Your task to perform on an android device: turn off wifi Image 0: 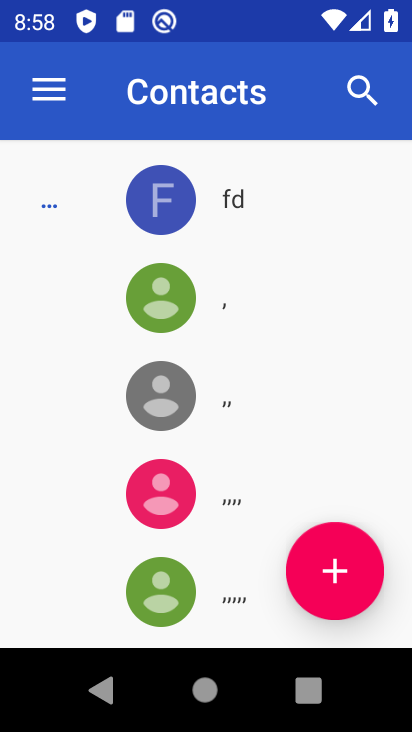
Step 0: press home button
Your task to perform on an android device: turn off wifi Image 1: 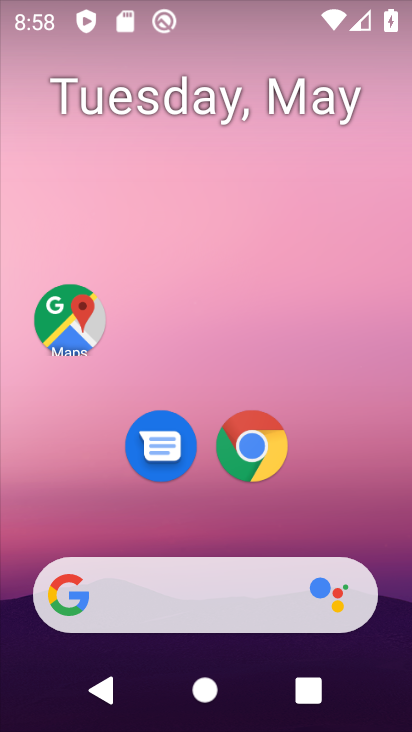
Step 1: drag from (387, 531) to (343, 200)
Your task to perform on an android device: turn off wifi Image 2: 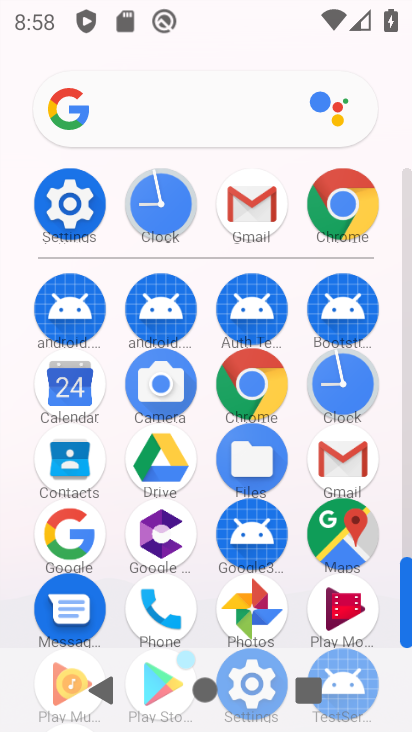
Step 2: click (73, 218)
Your task to perform on an android device: turn off wifi Image 3: 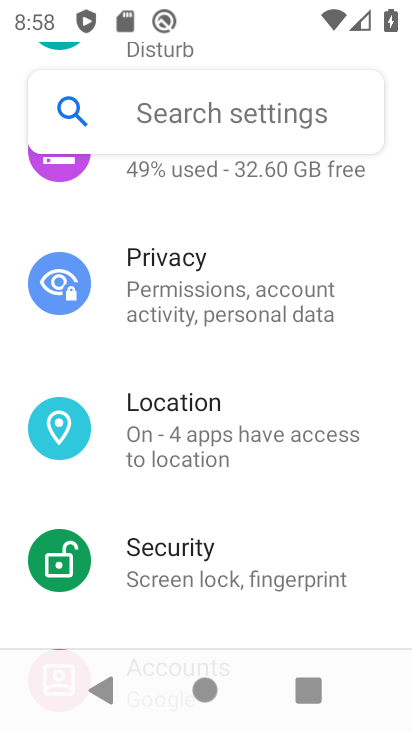
Step 3: drag from (362, 268) to (355, 466)
Your task to perform on an android device: turn off wifi Image 4: 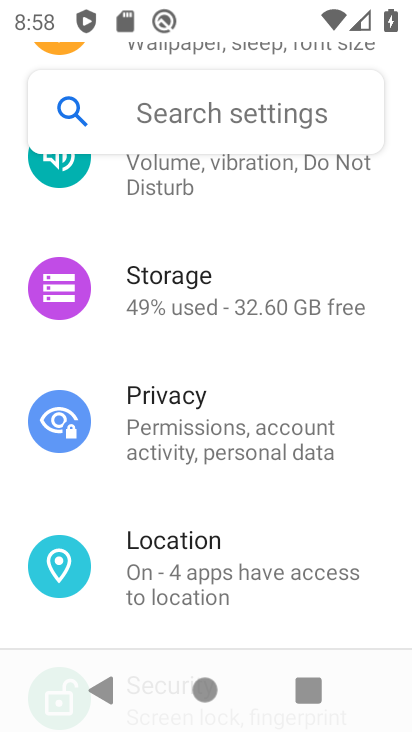
Step 4: drag from (371, 224) to (362, 368)
Your task to perform on an android device: turn off wifi Image 5: 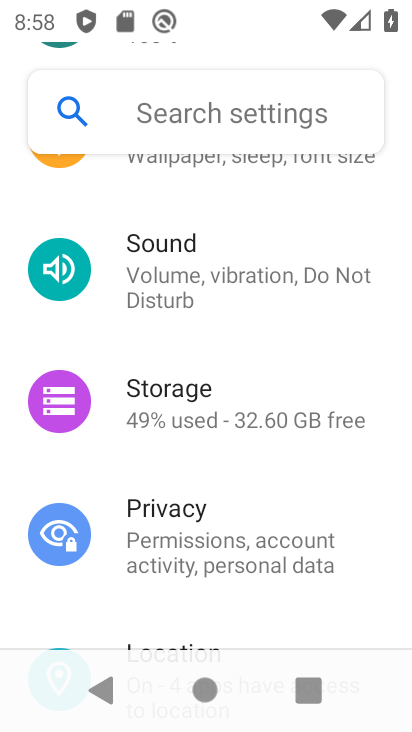
Step 5: drag from (370, 201) to (354, 347)
Your task to perform on an android device: turn off wifi Image 6: 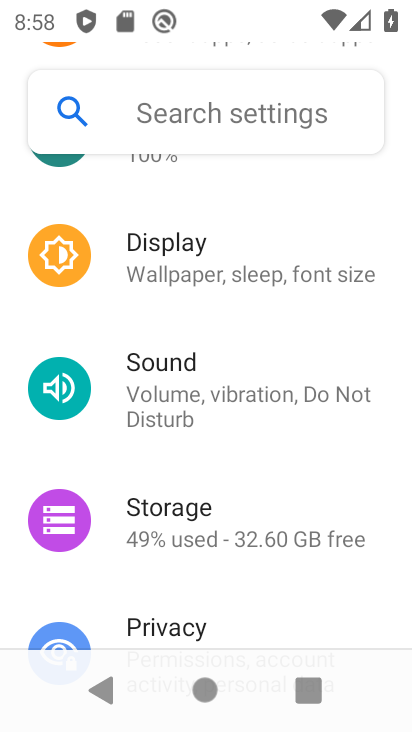
Step 6: drag from (337, 213) to (334, 381)
Your task to perform on an android device: turn off wifi Image 7: 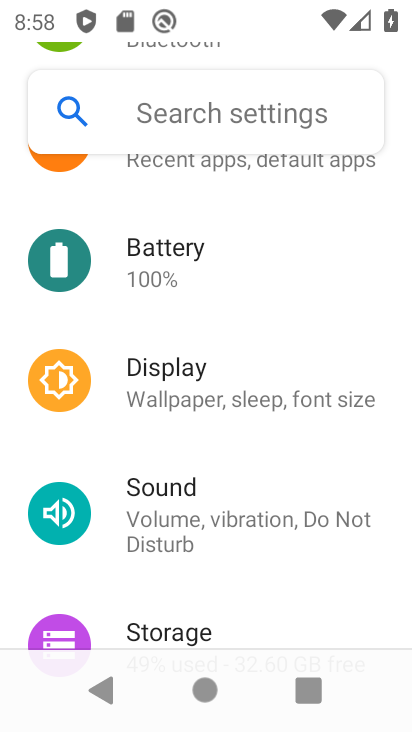
Step 7: drag from (336, 222) to (346, 319)
Your task to perform on an android device: turn off wifi Image 8: 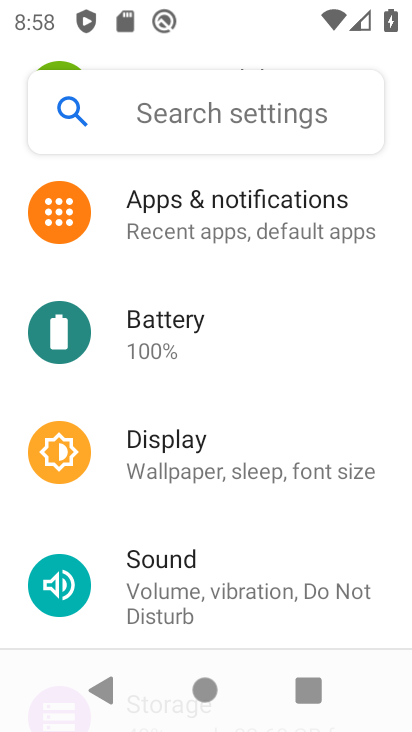
Step 8: drag from (357, 258) to (339, 383)
Your task to perform on an android device: turn off wifi Image 9: 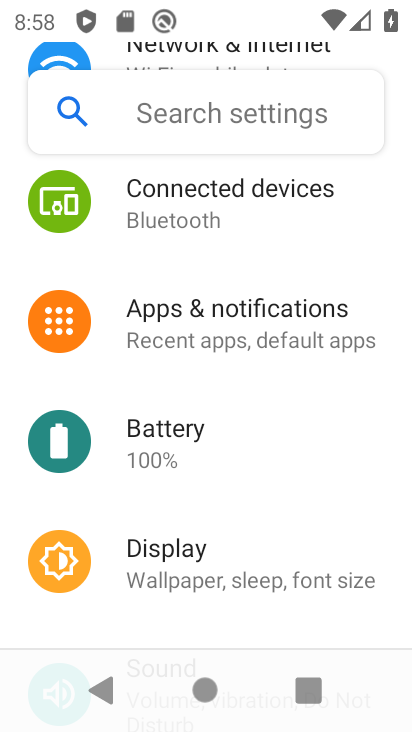
Step 9: drag from (352, 229) to (314, 396)
Your task to perform on an android device: turn off wifi Image 10: 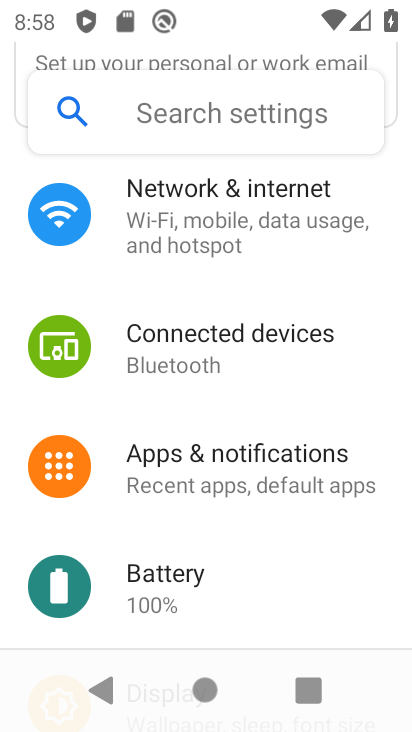
Step 10: drag from (328, 262) to (317, 430)
Your task to perform on an android device: turn off wifi Image 11: 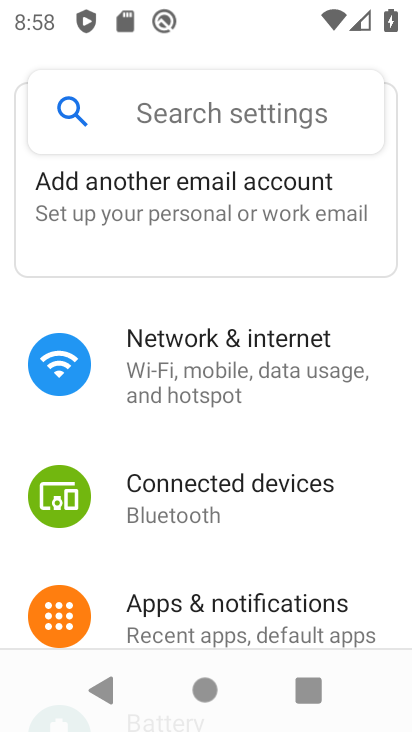
Step 11: click (259, 382)
Your task to perform on an android device: turn off wifi Image 12: 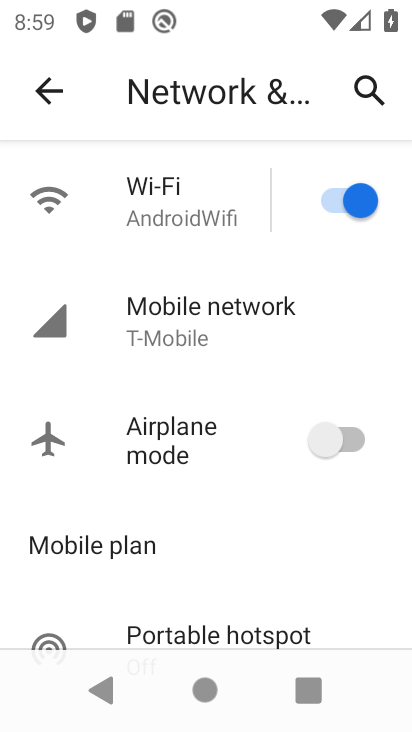
Step 12: click (356, 194)
Your task to perform on an android device: turn off wifi Image 13: 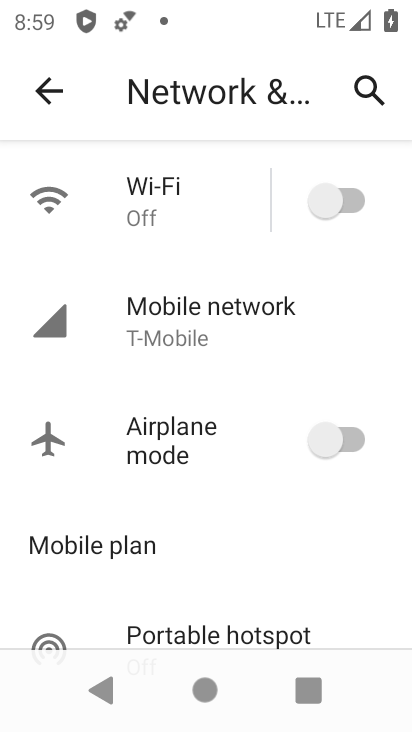
Step 13: task complete